Your task to perform on an android device: turn on translation in the chrome app Image 0: 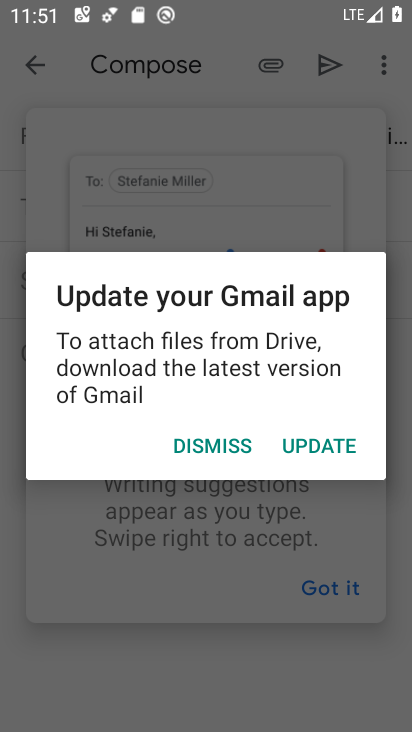
Step 0: press home button
Your task to perform on an android device: turn on translation in the chrome app Image 1: 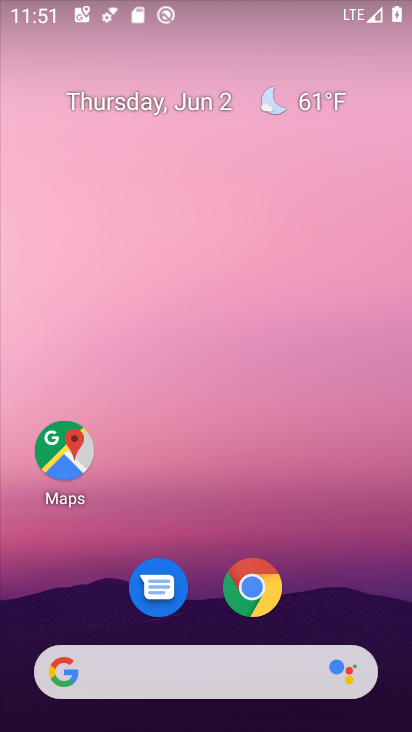
Step 1: click (263, 584)
Your task to perform on an android device: turn on translation in the chrome app Image 2: 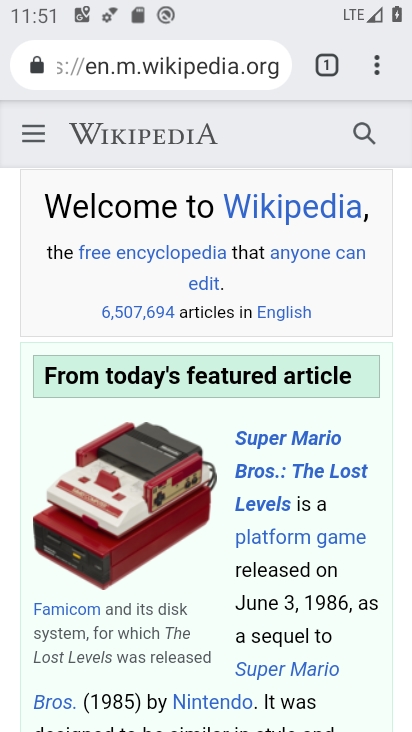
Step 2: click (370, 59)
Your task to perform on an android device: turn on translation in the chrome app Image 3: 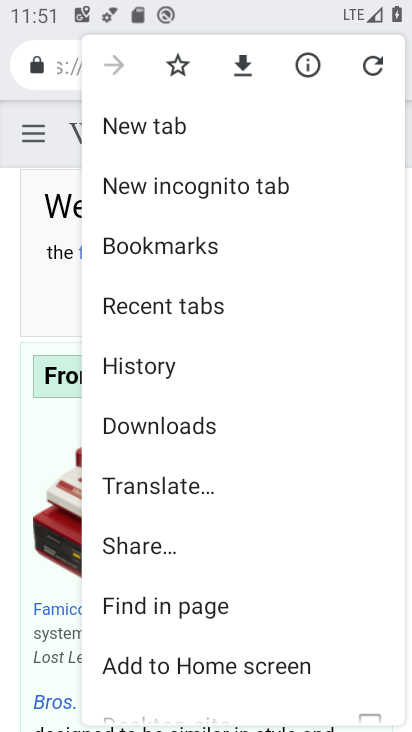
Step 3: drag from (253, 577) to (242, 218)
Your task to perform on an android device: turn on translation in the chrome app Image 4: 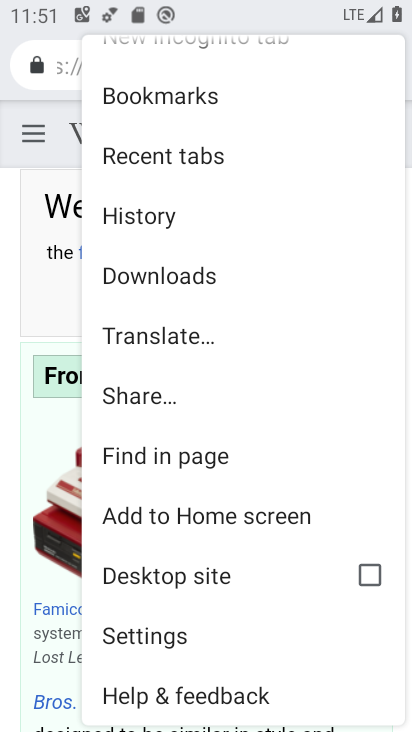
Step 4: click (191, 632)
Your task to perform on an android device: turn on translation in the chrome app Image 5: 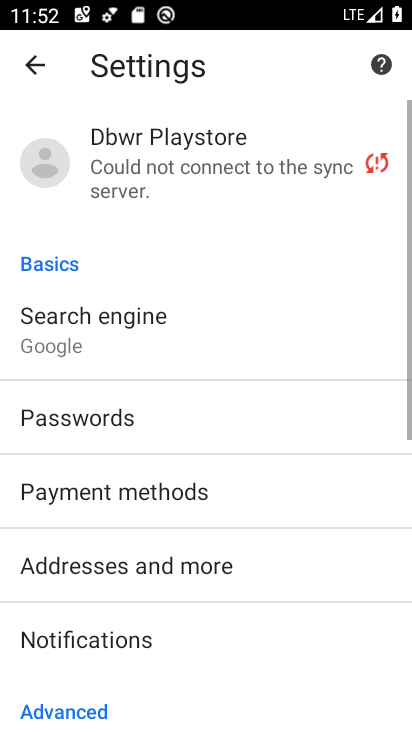
Step 5: drag from (284, 576) to (316, 145)
Your task to perform on an android device: turn on translation in the chrome app Image 6: 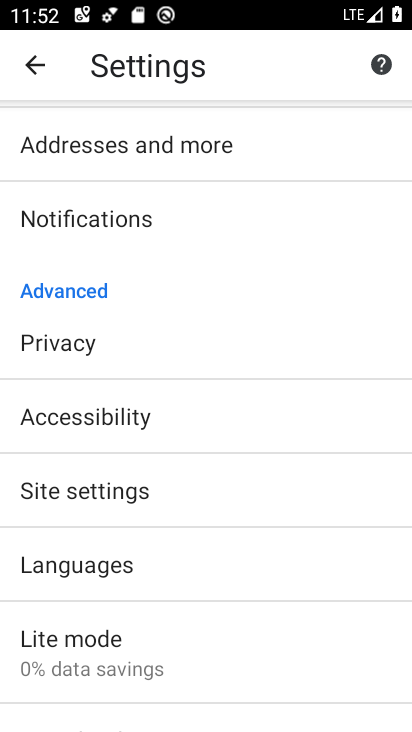
Step 6: click (245, 554)
Your task to perform on an android device: turn on translation in the chrome app Image 7: 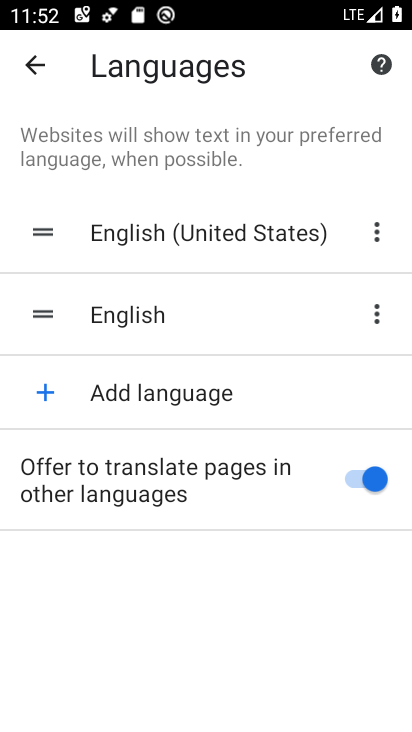
Step 7: task complete